Your task to perform on an android device: Open location settings Image 0: 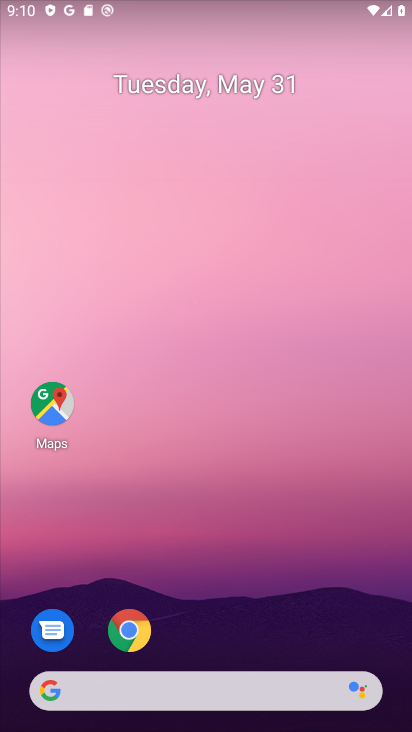
Step 0: drag from (124, 719) to (30, 164)
Your task to perform on an android device: Open location settings Image 1: 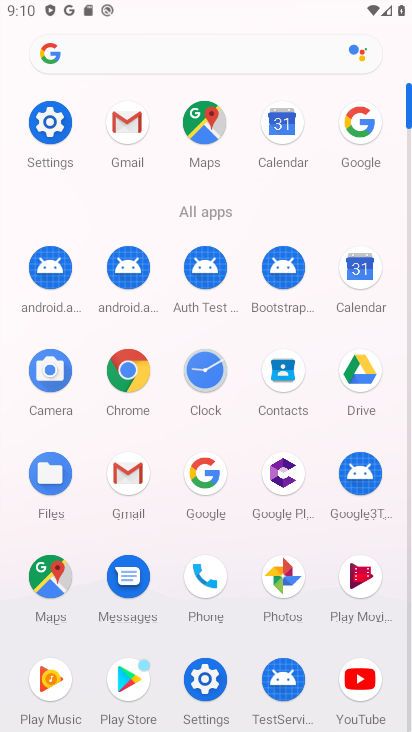
Step 1: click (199, 668)
Your task to perform on an android device: Open location settings Image 2: 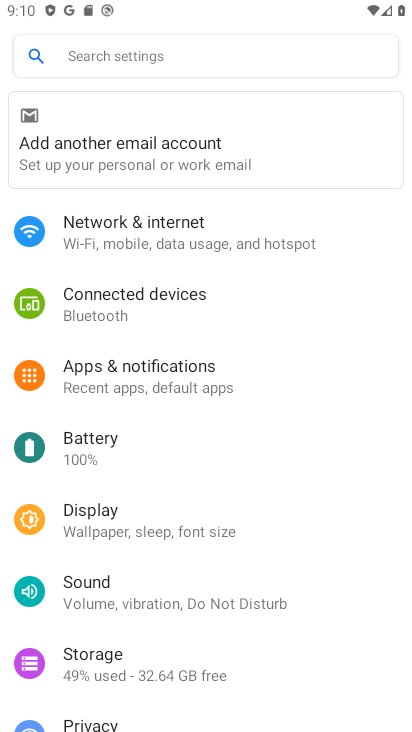
Step 2: drag from (265, 680) to (270, 307)
Your task to perform on an android device: Open location settings Image 3: 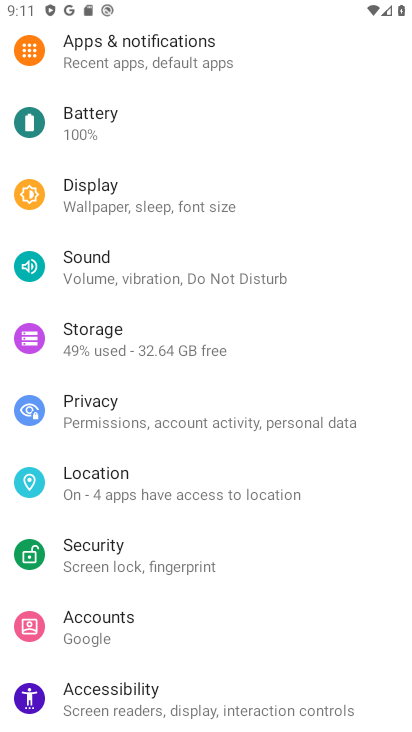
Step 3: click (179, 485)
Your task to perform on an android device: Open location settings Image 4: 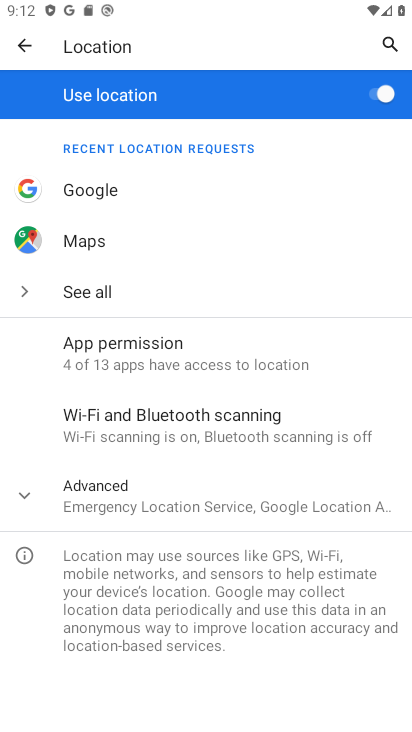
Step 4: task complete